Your task to perform on an android device: turn off sleep mode Image 0: 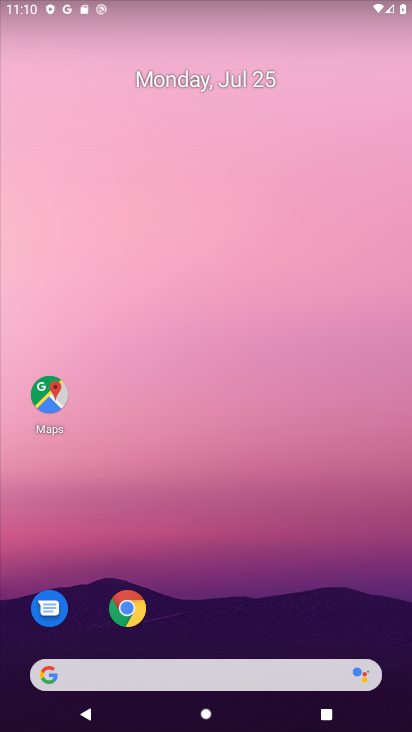
Step 0: drag from (178, 627) to (175, 74)
Your task to perform on an android device: turn off sleep mode Image 1: 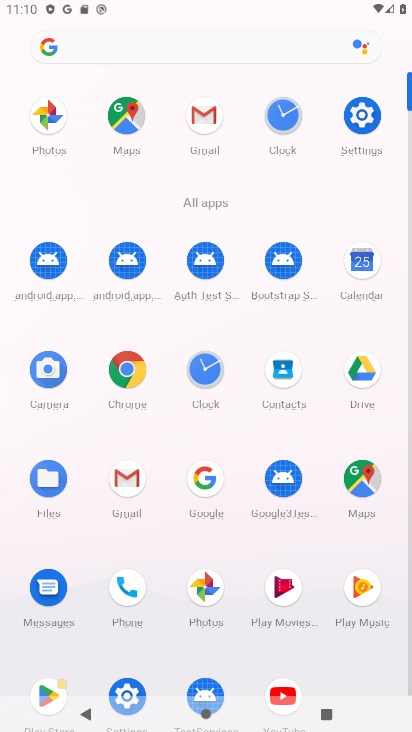
Step 1: click (354, 99)
Your task to perform on an android device: turn off sleep mode Image 2: 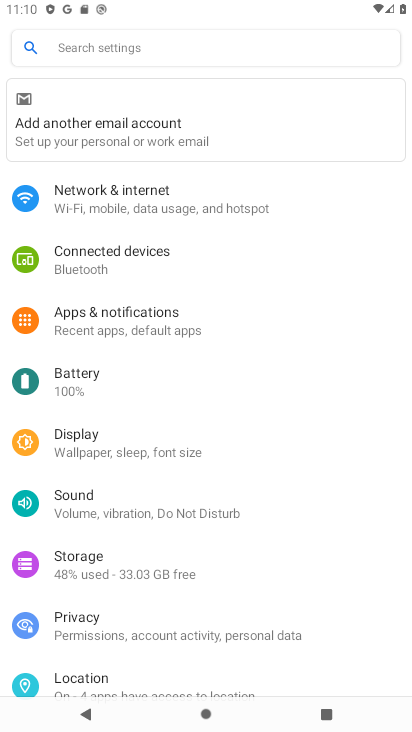
Step 2: task complete